Your task to perform on an android device: set the stopwatch Image 0: 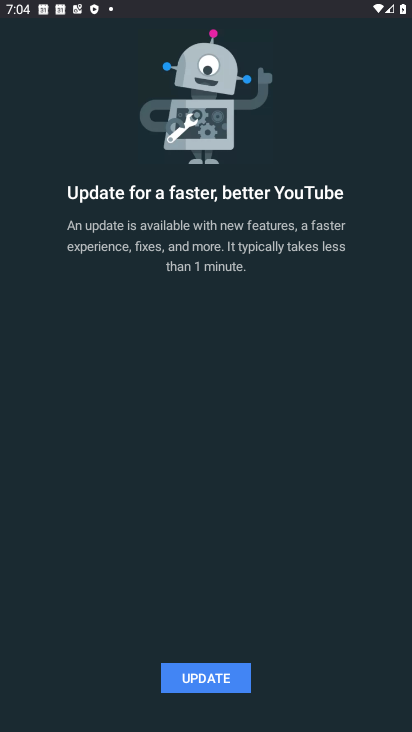
Step 0: press home button
Your task to perform on an android device: set the stopwatch Image 1: 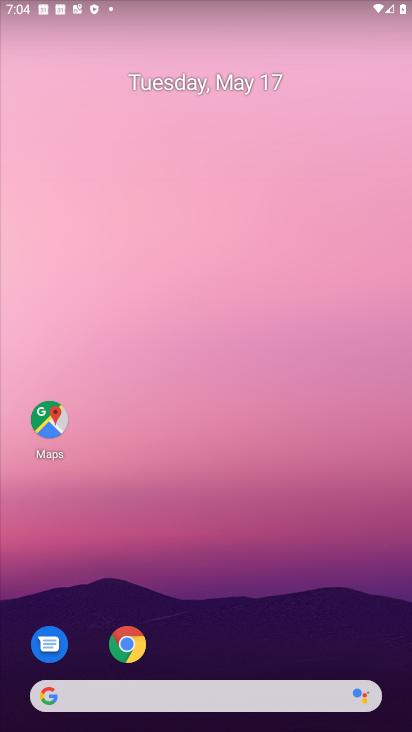
Step 1: drag from (340, 639) to (202, 104)
Your task to perform on an android device: set the stopwatch Image 2: 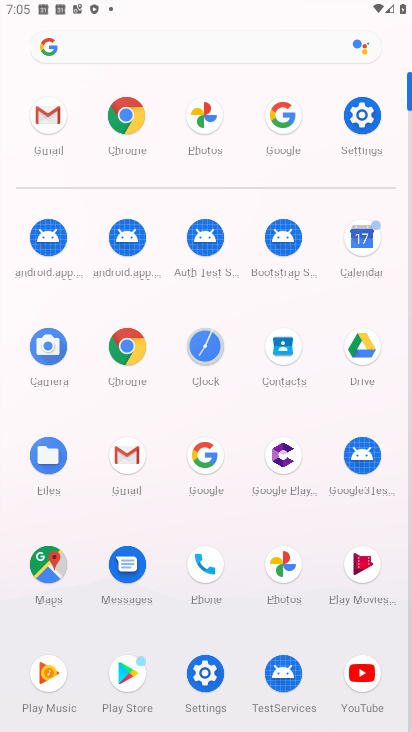
Step 2: click (213, 357)
Your task to perform on an android device: set the stopwatch Image 3: 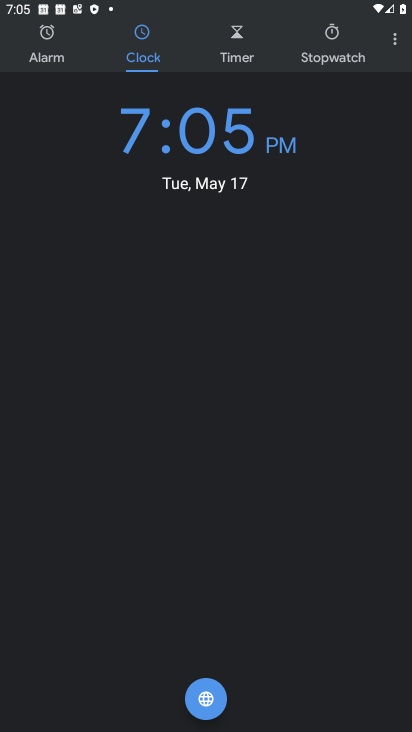
Step 3: click (339, 39)
Your task to perform on an android device: set the stopwatch Image 4: 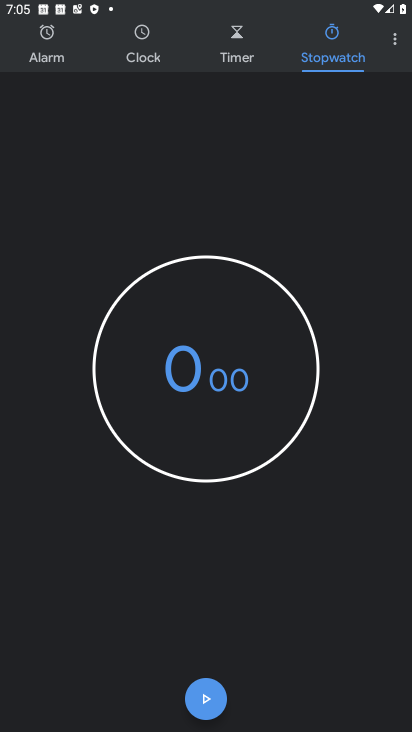
Step 4: click (208, 712)
Your task to perform on an android device: set the stopwatch Image 5: 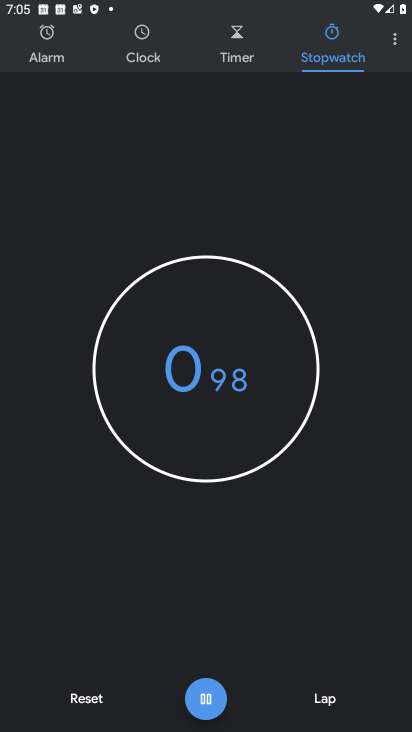
Step 5: click (208, 705)
Your task to perform on an android device: set the stopwatch Image 6: 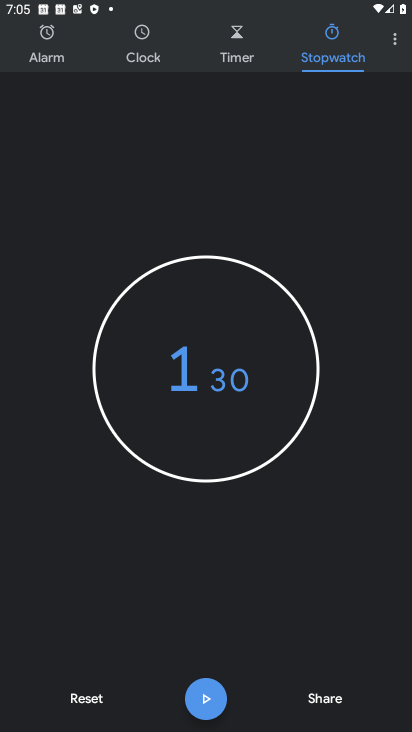
Step 6: task complete